Your task to perform on an android device: turn off translation in the chrome app Image 0: 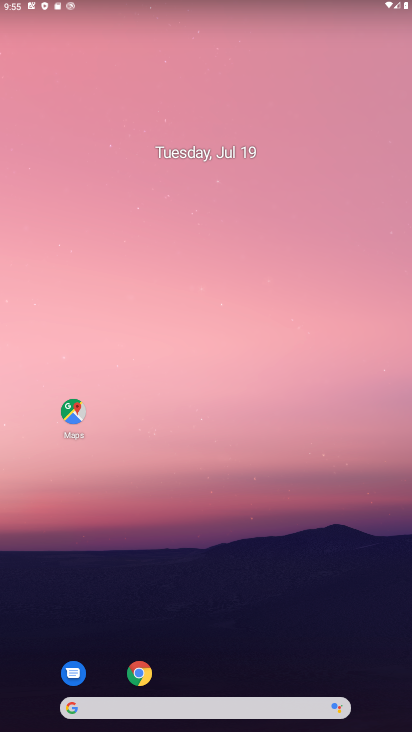
Step 0: click (147, 669)
Your task to perform on an android device: turn off translation in the chrome app Image 1: 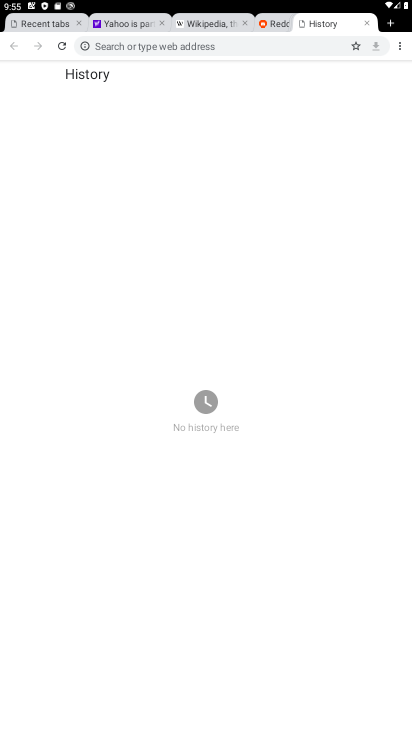
Step 1: click (409, 45)
Your task to perform on an android device: turn off translation in the chrome app Image 2: 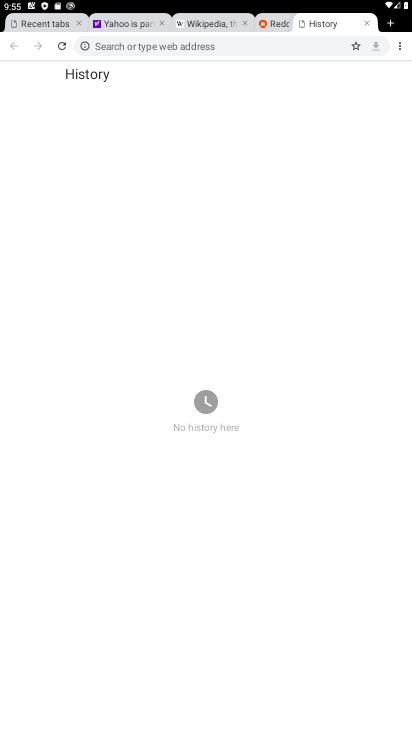
Step 2: click (394, 45)
Your task to perform on an android device: turn off translation in the chrome app Image 3: 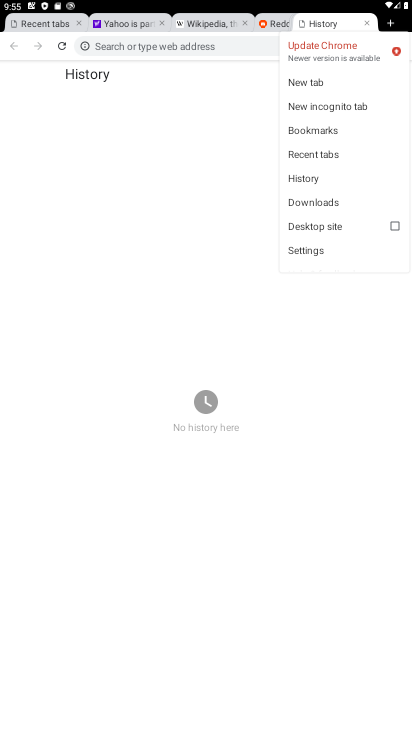
Step 3: click (319, 244)
Your task to perform on an android device: turn off translation in the chrome app Image 4: 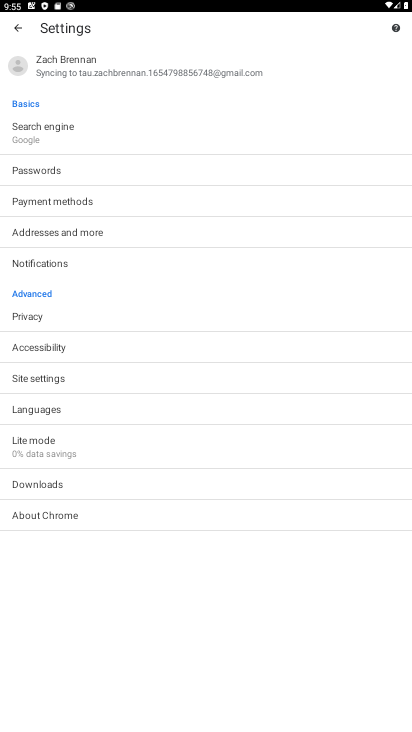
Step 4: click (122, 406)
Your task to perform on an android device: turn off translation in the chrome app Image 5: 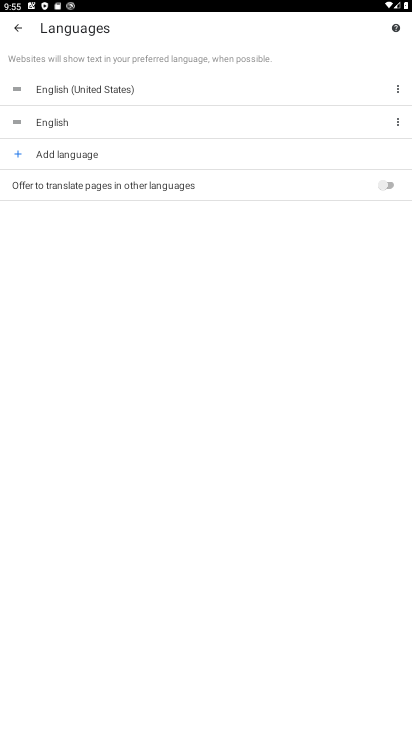
Step 5: task complete